Your task to perform on an android device: change the clock display to analog Image 0: 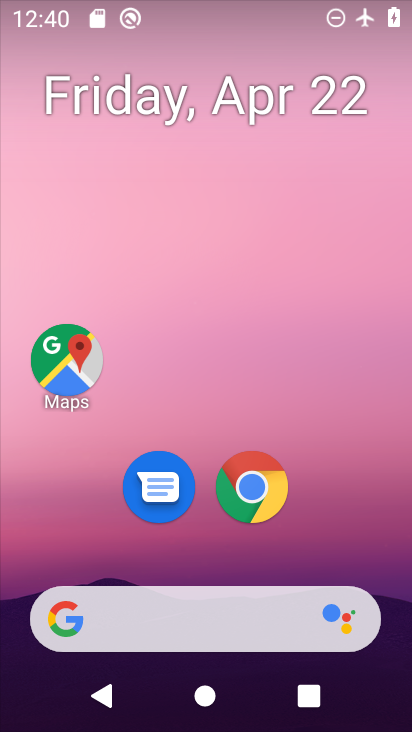
Step 0: drag from (319, 524) to (344, 237)
Your task to perform on an android device: change the clock display to analog Image 1: 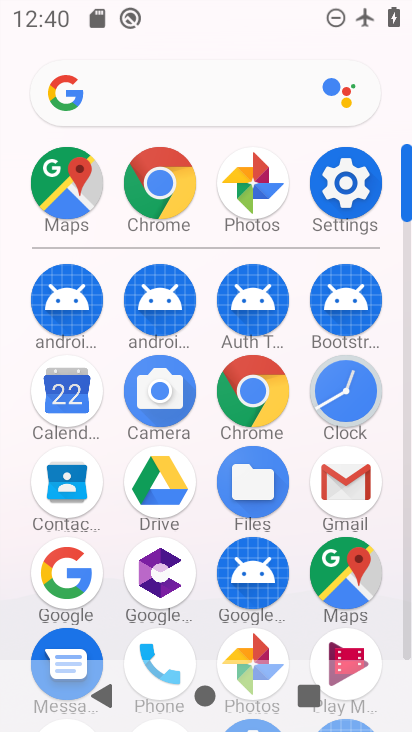
Step 1: click (353, 368)
Your task to perform on an android device: change the clock display to analog Image 2: 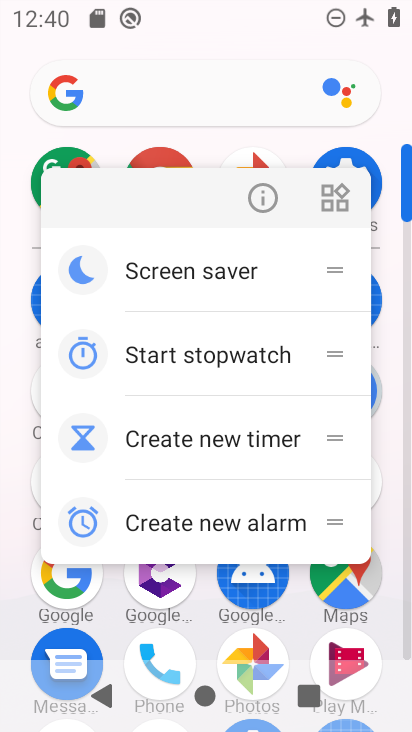
Step 2: press back button
Your task to perform on an android device: change the clock display to analog Image 3: 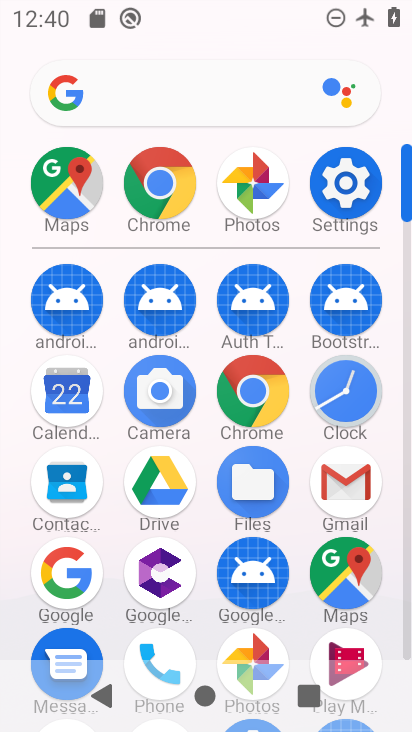
Step 3: click (352, 384)
Your task to perform on an android device: change the clock display to analog Image 4: 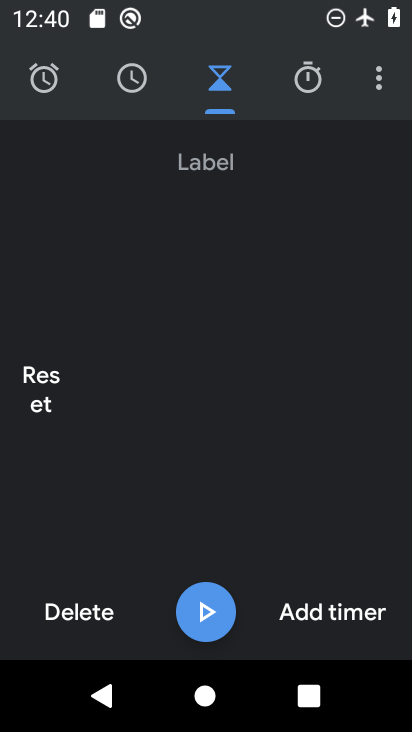
Step 4: click (361, 76)
Your task to perform on an android device: change the clock display to analog Image 5: 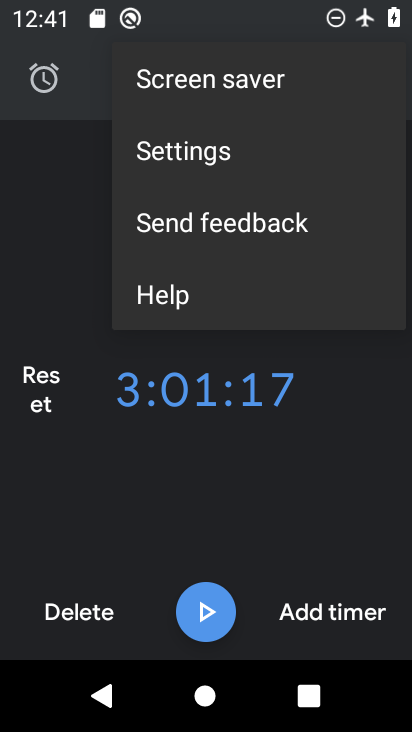
Step 5: click (218, 161)
Your task to perform on an android device: change the clock display to analog Image 6: 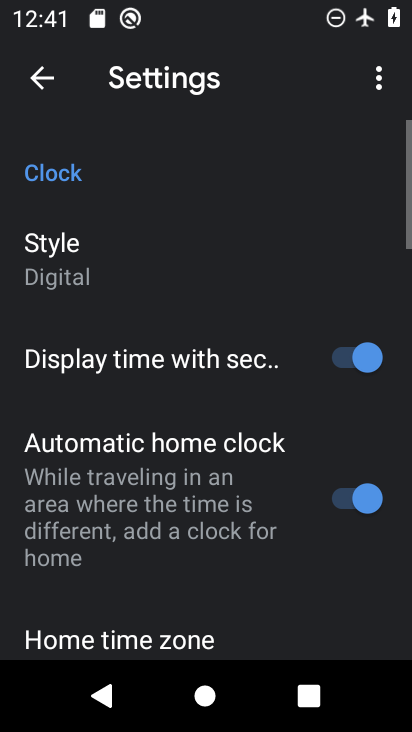
Step 6: click (133, 251)
Your task to perform on an android device: change the clock display to analog Image 7: 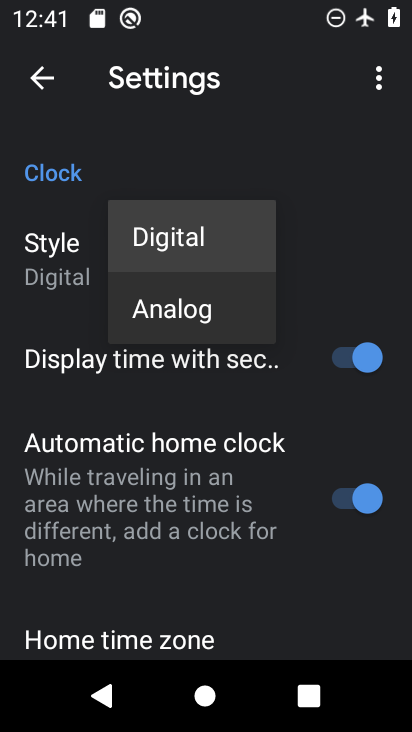
Step 7: click (174, 308)
Your task to perform on an android device: change the clock display to analog Image 8: 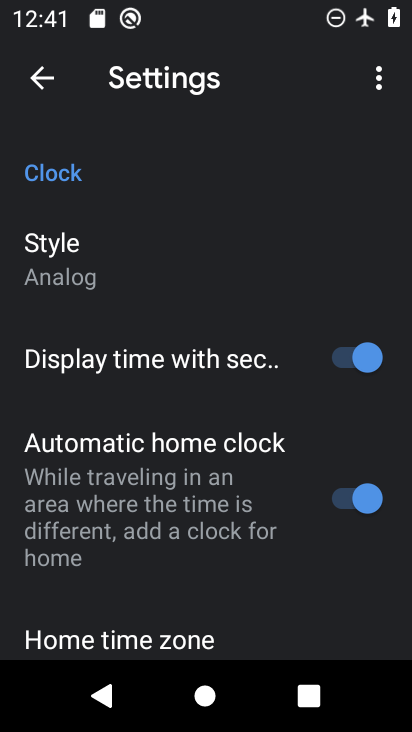
Step 8: task complete